Your task to perform on an android device: Check the news Image 0: 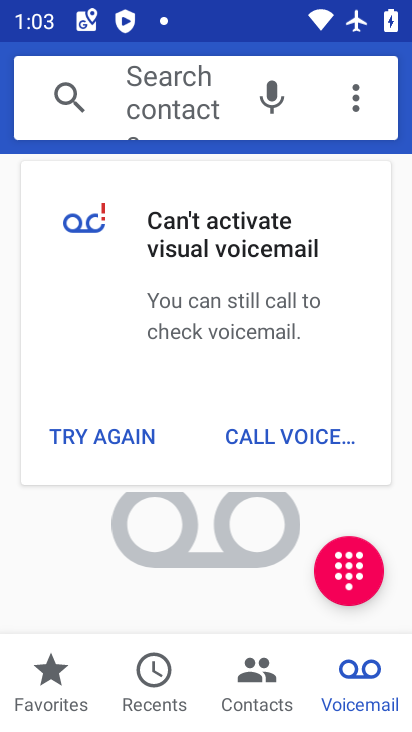
Step 0: press home button
Your task to perform on an android device: Check the news Image 1: 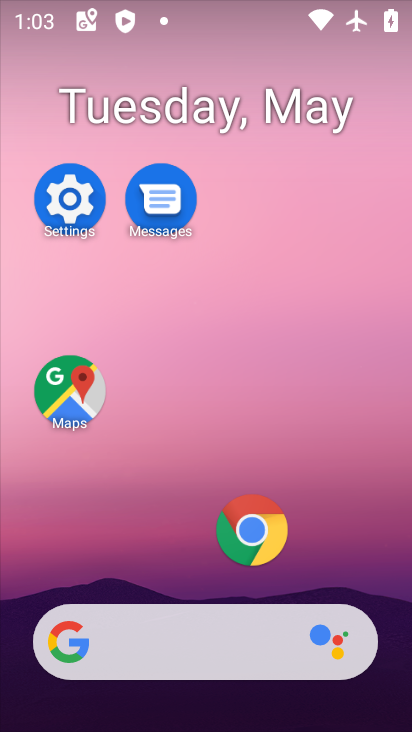
Step 1: drag from (163, 517) to (253, 137)
Your task to perform on an android device: Check the news Image 2: 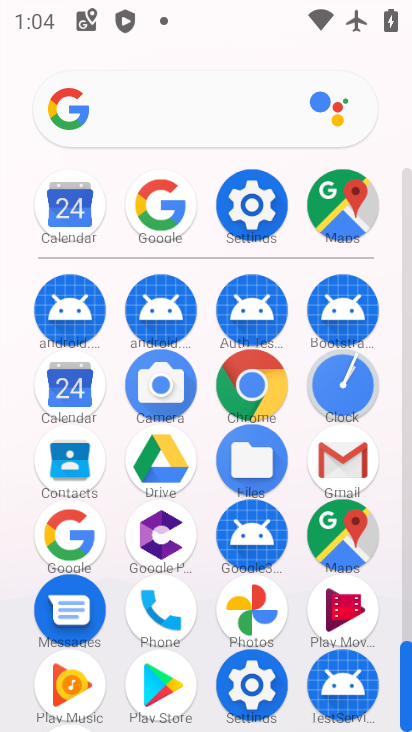
Step 2: click (255, 405)
Your task to perform on an android device: Check the news Image 3: 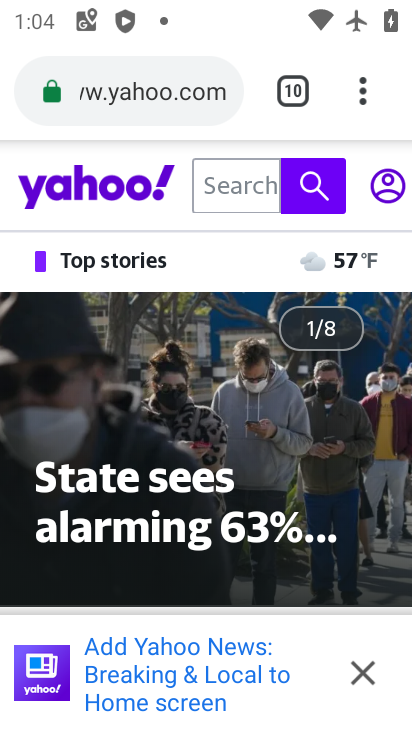
Step 3: press home button
Your task to perform on an android device: Check the news Image 4: 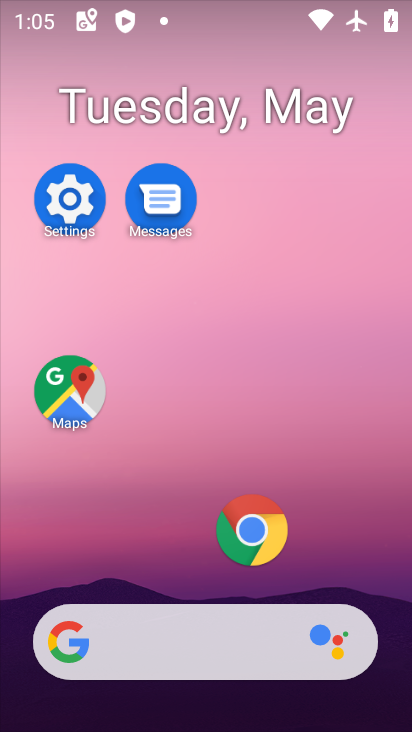
Step 4: drag from (180, 564) to (210, 128)
Your task to perform on an android device: Check the news Image 5: 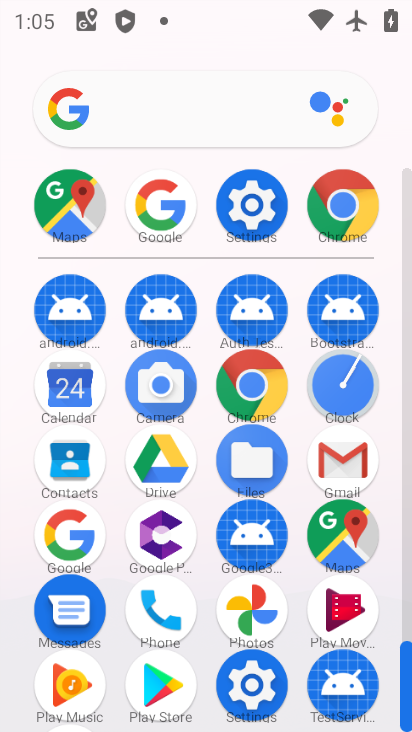
Step 5: click (66, 550)
Your task to perform on an android device: Check the news Image 6: 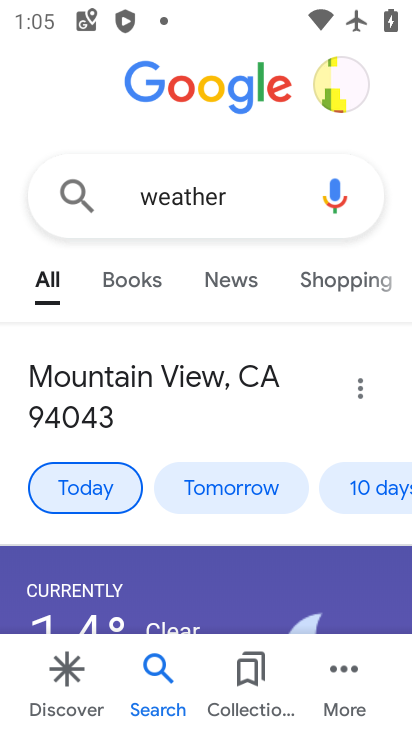
Step 6: click (56, 679)
Your task to perform on an android device: Check the news Image 7: 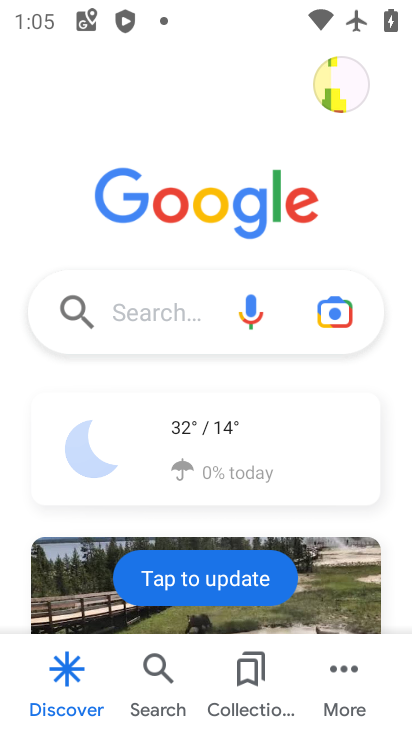
Step 7: task complete